Your task to perform on an android device: Go to internet settings Image 0: 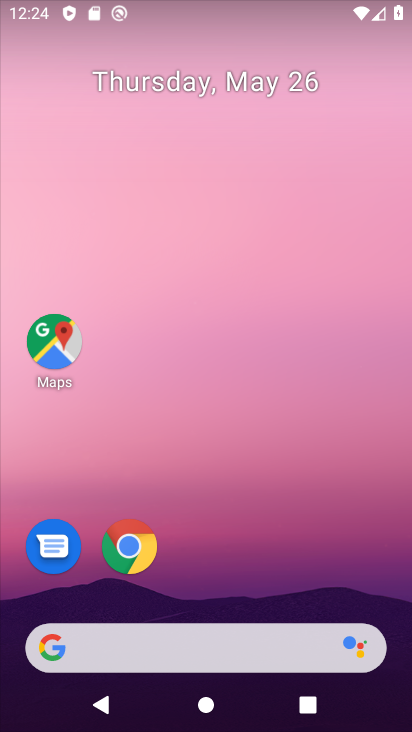
Step 0: drag from (293, 542) to (238, 118)
Your task to perform on an android device: Go to internet settings Image 1: 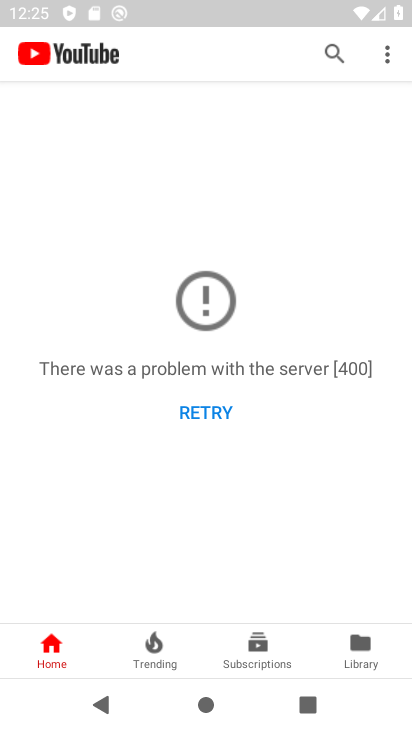
Step 1: press home button
Your task to perform on an android device: Go to internet settings Image 2: 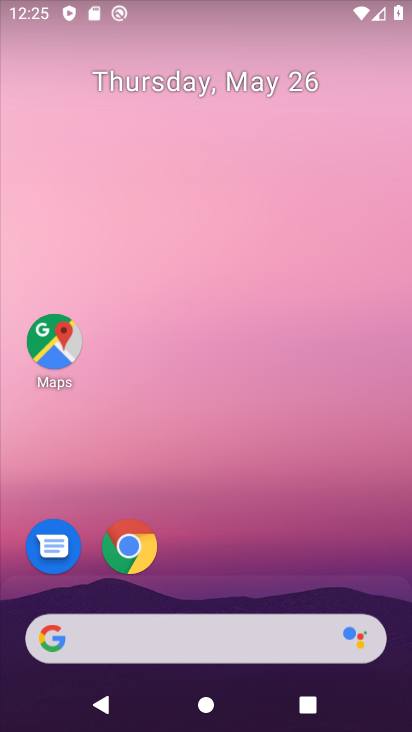
Step 2: drag from (281, 571) to (238, 113)
Your task to perform on an android device: Go to internet settings Image 3: 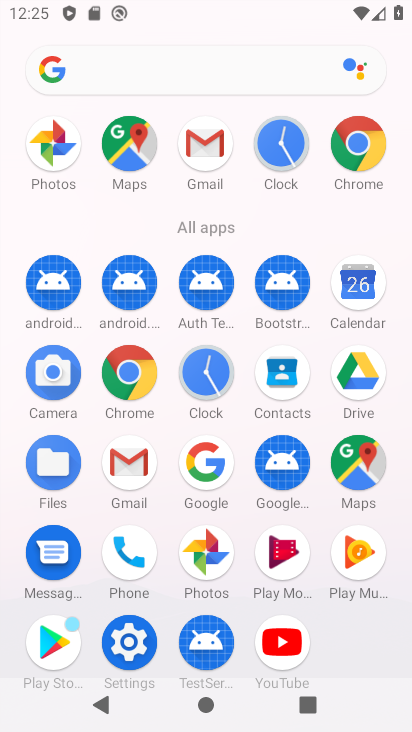
Step 3: click (140, 637)
Your task to perform on an android device: Go to internet settings Image 4: 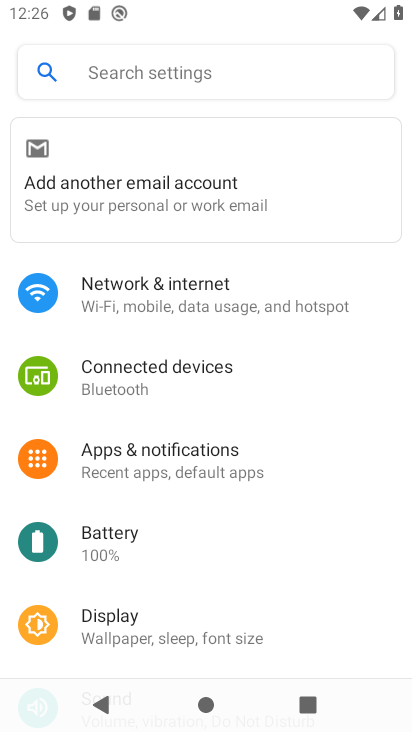
Step 4: click (194, 291)
Your task to perform on an android device: Go to internet settings Image 5: 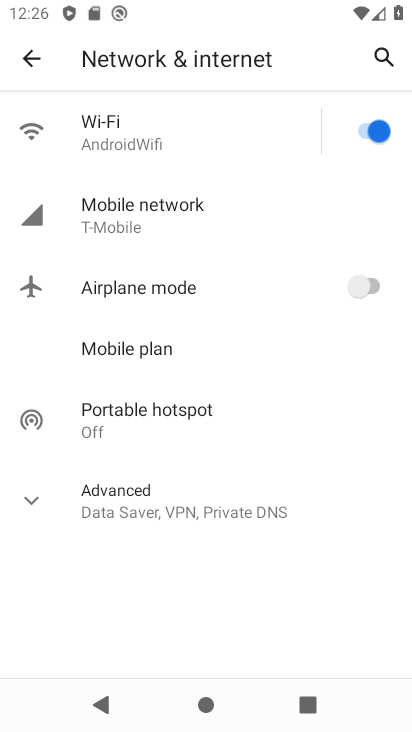
Step 5: task complete